Your task to perform on an android device: turn on bluetooth scan Image 0: 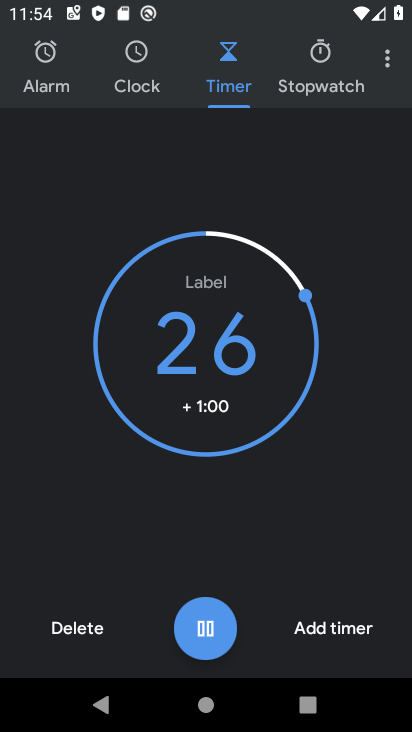
Step 0: press home button
Your task to perform on an android device: turn on bluetooth scan Image 1: 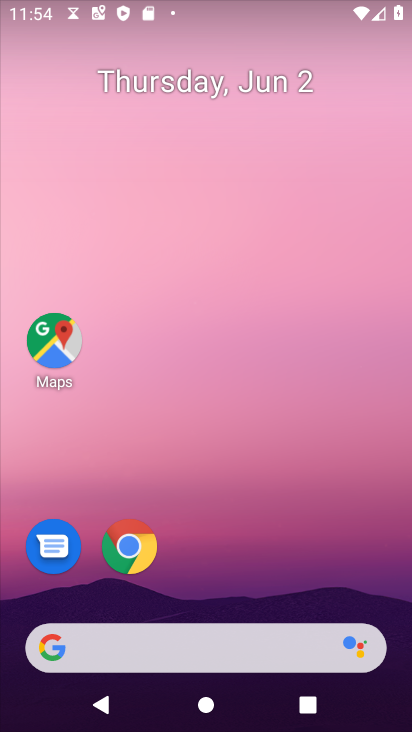
Step 1: click (274, 210)
Your task to perform on an android device: turn on bluetooth scan Image 2: 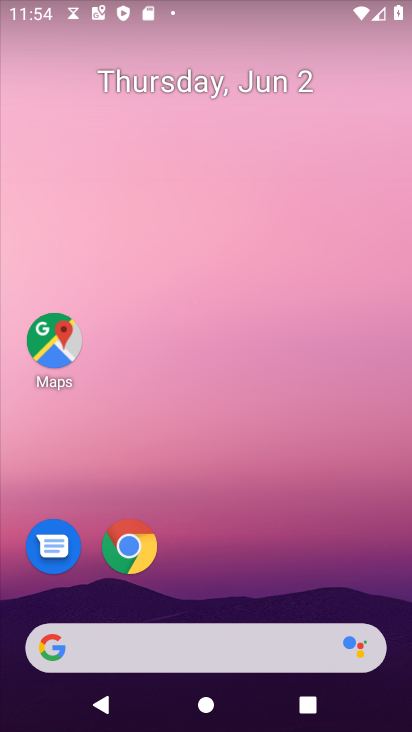
Step 2: drag from (209, 689) to (310, 193)
Your task to perform on an android device: turn on bluetooth scan Image 3: 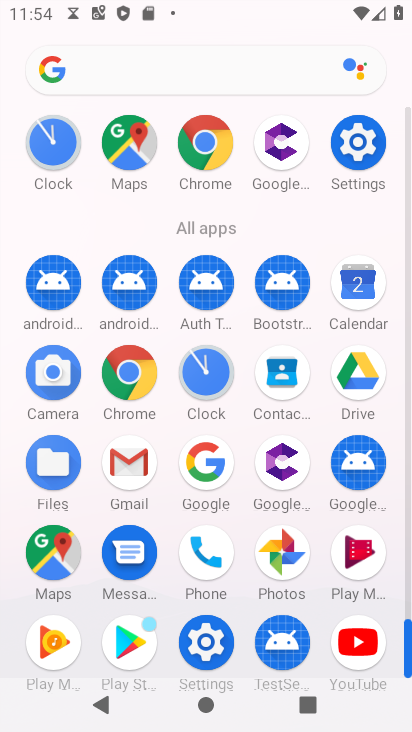
Step 3: click (345, 134)
Your task to perform on an android device: turn on bluetooth scan Image 4: 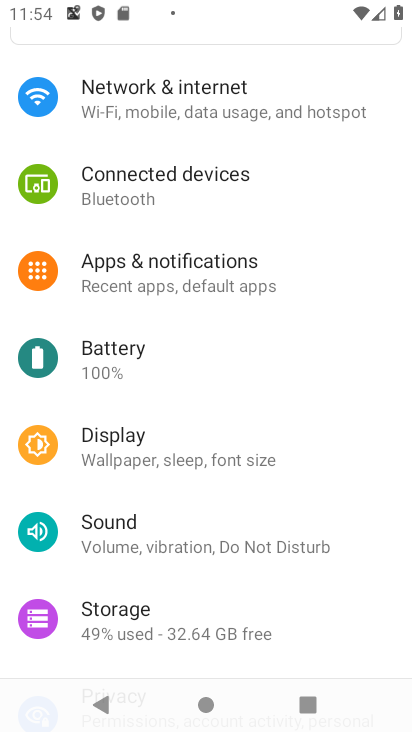
Step 4: click (240, 116)
Your task to perform on an android device: turn on bluetooth scan Image 5: 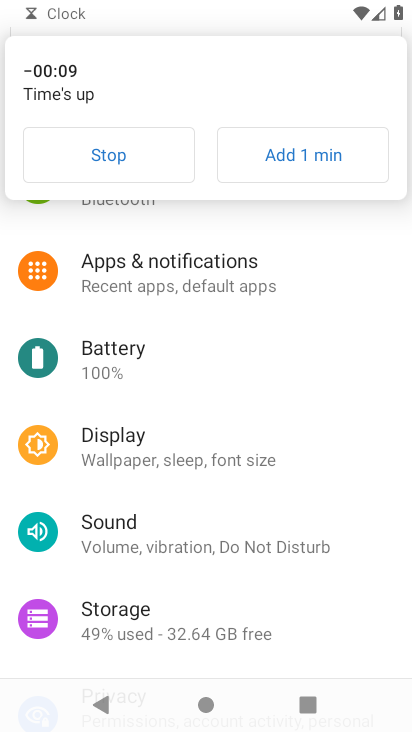
Step 5: drag from (204, 323) to (204, 645)
Your task to perform on an android device: turn on bluetooth scan Image 6: 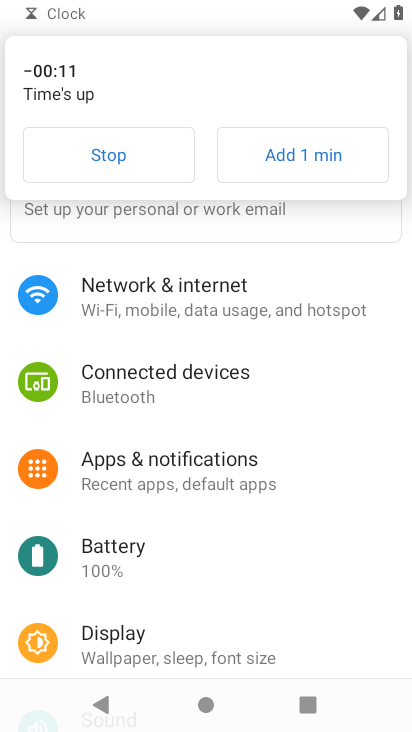
Step 6: click (201, 389)
Your task to perform on an android device: turn on bluetooth scan Image 7: 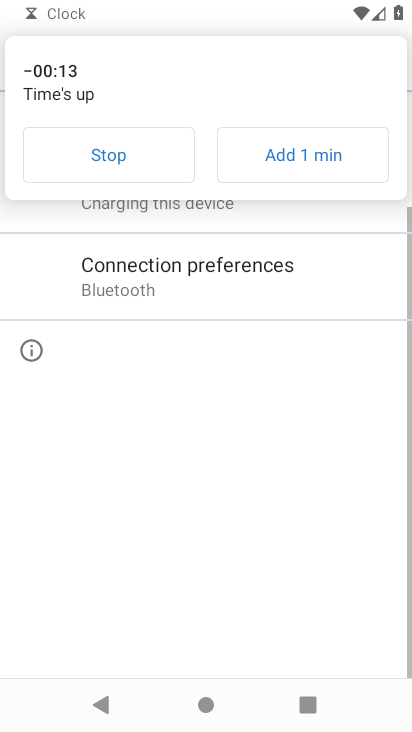
Step 7: click (303, 310)
Your task to perform on an android device: turn on bluetooth scan Image 8: 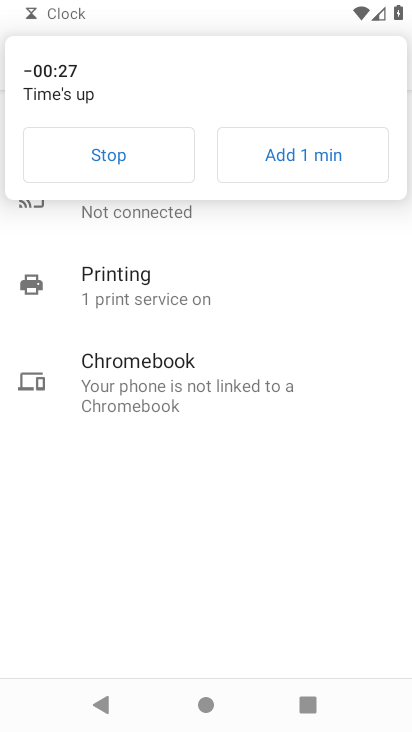
Step 8: click (132, 177)
Your task to perform on an android device: turn on bluetooth scan Image 9: 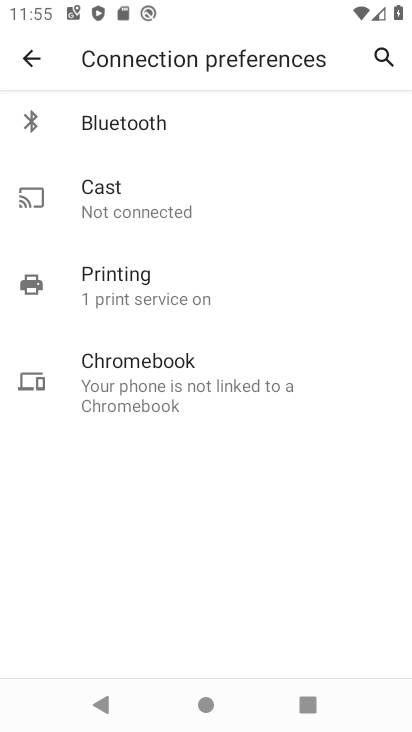
Step 9: click (292, 105)
Your task to perform on an android device: turn on bluetooth scan Image 10: 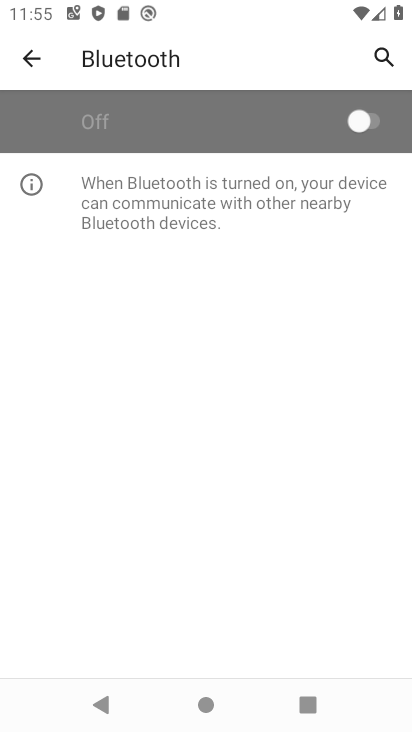
Step 10: click (371, 109)
Your task to perform on an android device: turn on bluetooth scan Image 11: 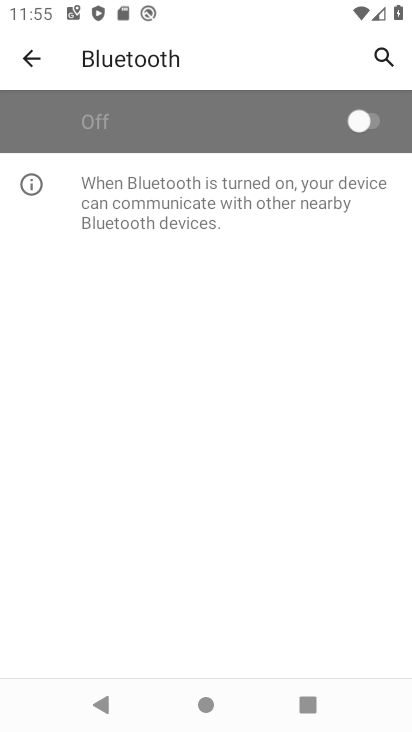
Step 11: task complete